Your task to perform on an android device: What's the weather? Image 0: 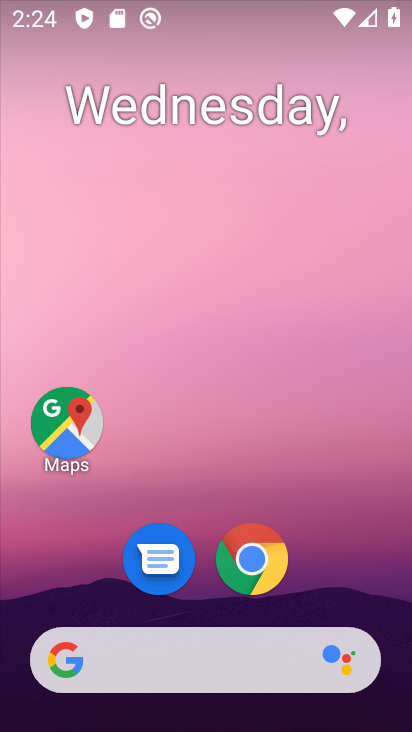
Step 0: drag from (368, 575) to (339, 165)
Your task to perform on an android device: What's the weather? Image 1: 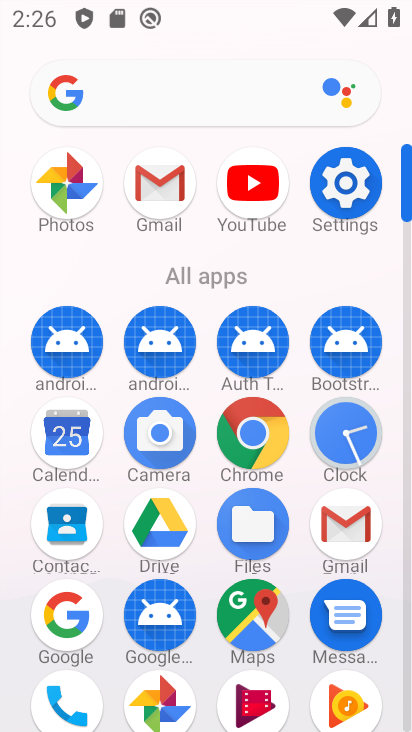
Step 1: drag from (286, 602) to (272, 213)
Your task to perform on an android device: What's the weather? Image 2: 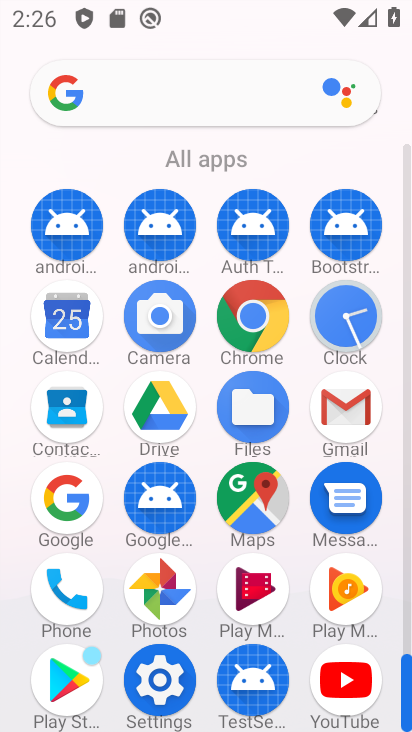
Step 2: drag from (299, 362) to (286, 601)
Your task to perform on an android device: What's the weather? Image 3: 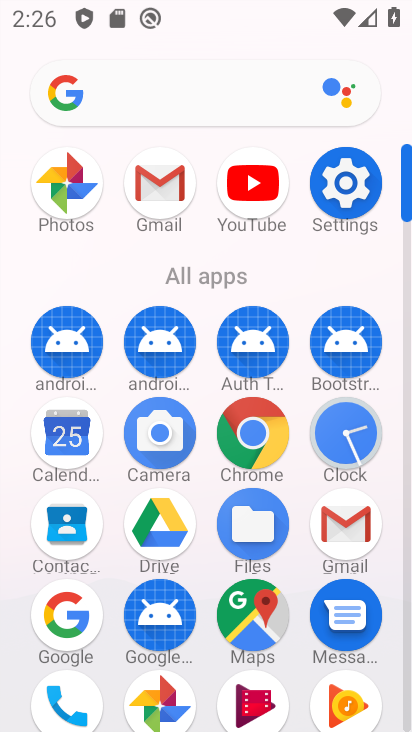
Step 3: click (71, 618)
Your task to perform on an android device: What's the weather? Image 4: 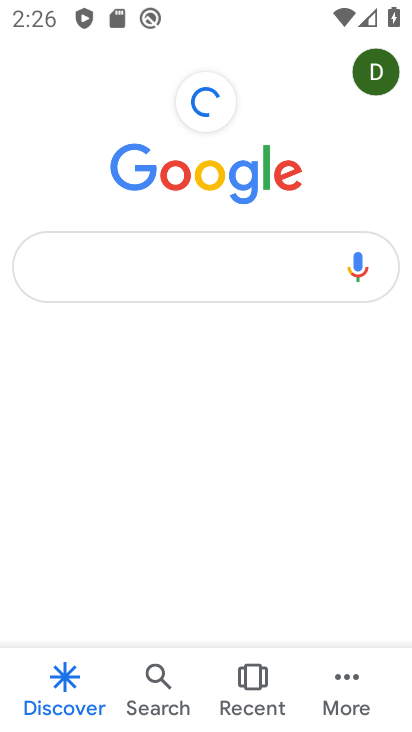
Step 4: click (160, 276)
Your task to perform on an android device: What's the weather? Image 5: 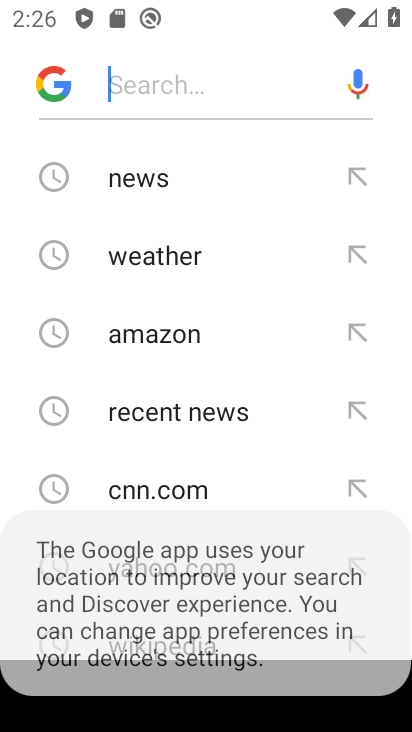
Step 5: click (138, 255)
Your task to perform on an android device: What's the weather? Image 6: 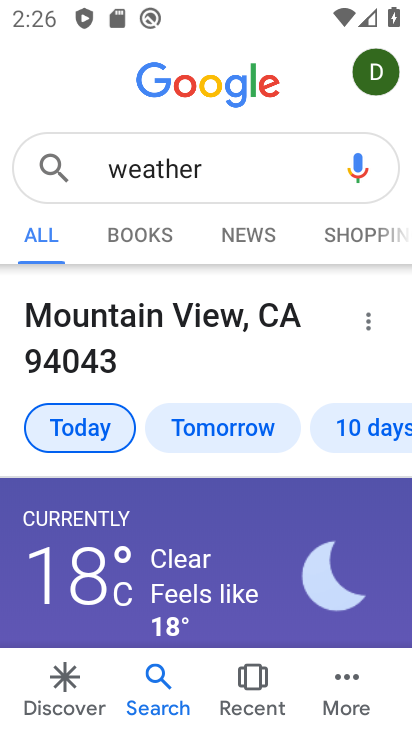
Step 6: task complete